Your task to perform on an android device: Open Chrome and go to settings Image 0: 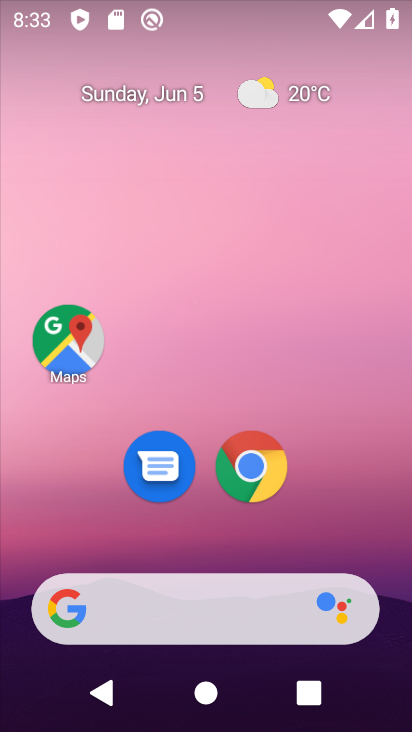
Step 0: click (265, 472)
Your task to perform on an android device: Open Chrome and go to settings Image 1: 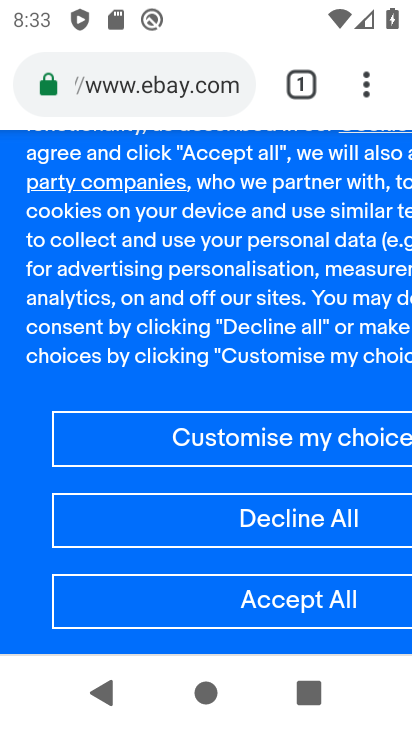
Step 1: click (363, 87)
Your task to perform on an android device: Open Chrome and go to settings Image 2: 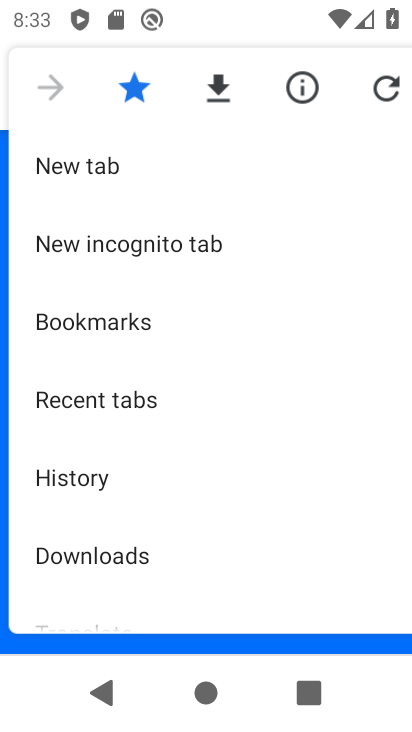
Step 2: drag from (173, 563) to (186, 192)
Your task to perform on an android device: Open Chrome and go to settings Image 3: 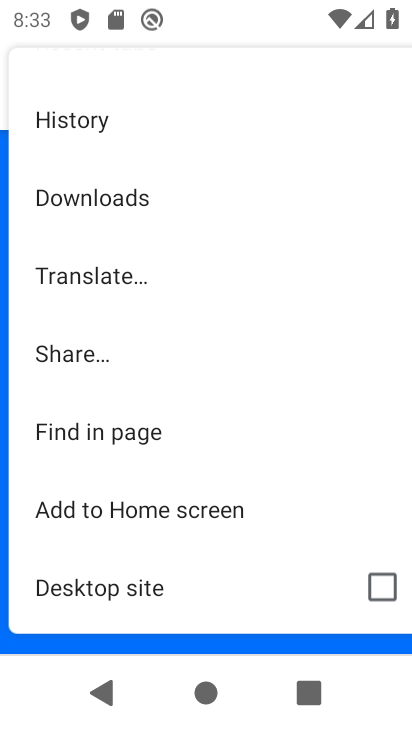
Step 3: drag from (150, 561) to (160, 201)
Your task to perform on an android device: Open Chrome and go to settings Image 4: 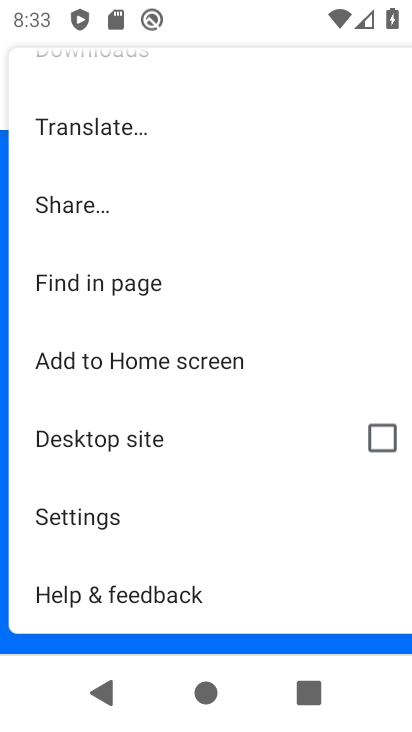
Step 4: click (106, 523)
Your task to perform on an android device: Open Chrome and go to settings Image 5: 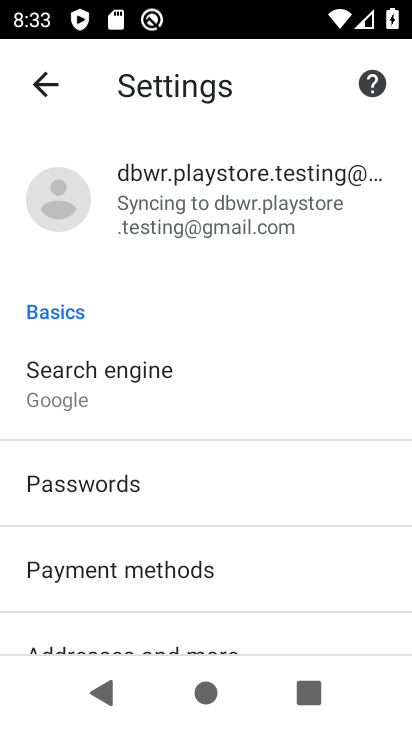
Step 5: task complete